Your task to perform on an android device: turn off airplane mode Image 0: 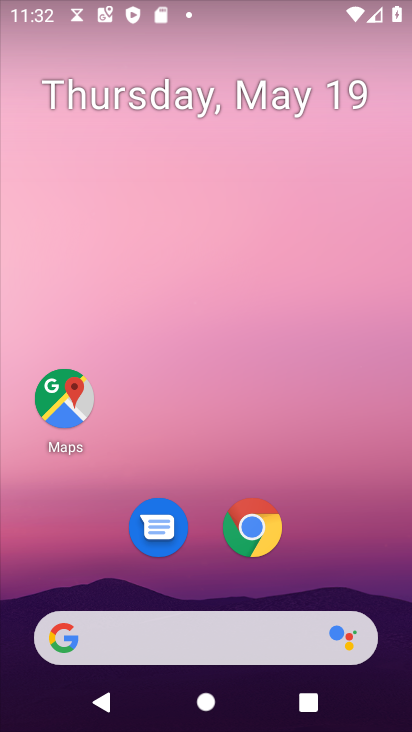
Step 0: drag from (213, 482) to (256, 66)
Your task to perform on an android device: turn off airplane mode Image 1: 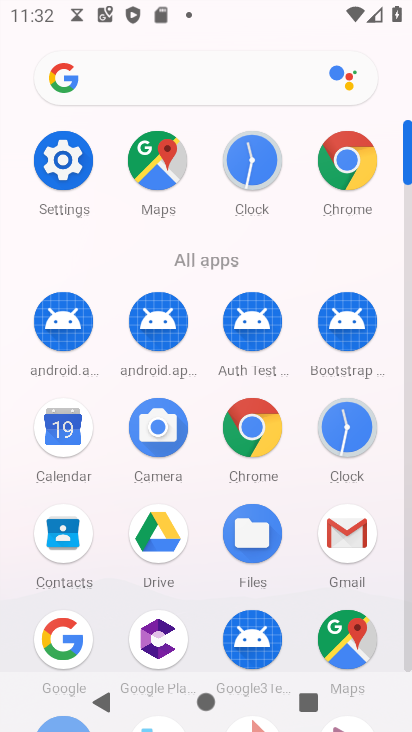
Step 1: click (86, 174)
Your task to perform on an android device: turn off airplane mode Image 2: 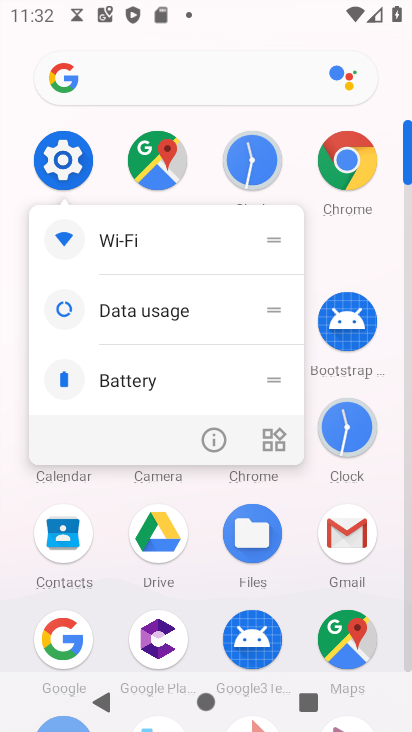
Step 2: click (58, 161)
Your task to perform on an android device: turn off airplane mode Image 3: 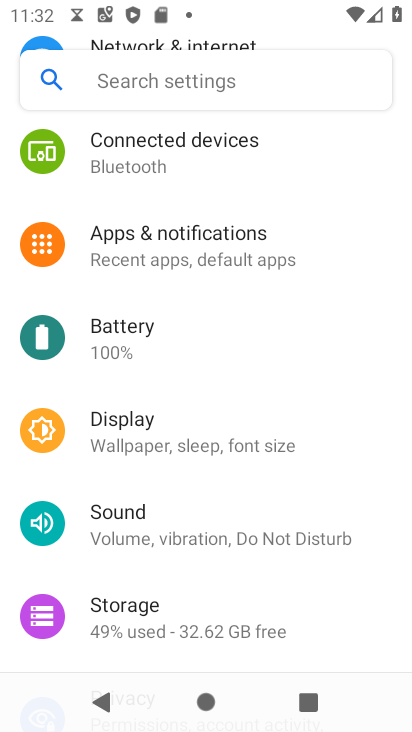
Step 3: click (169, 504)
Your task to perform on an android device: turn off airplane mode Image 4: 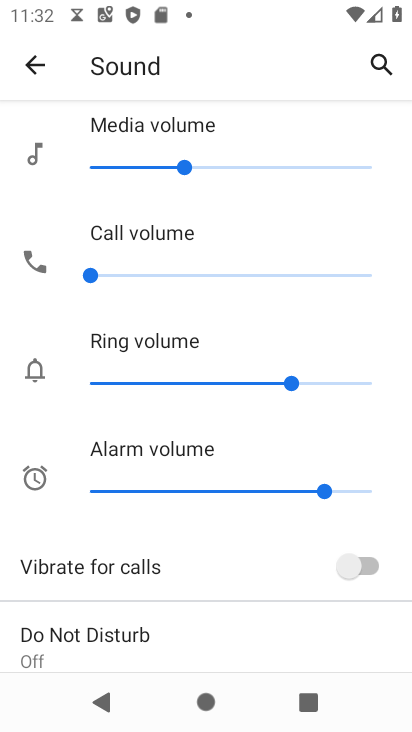
Step 4: drag from (230, 294) to (220, 388)
Your task to perform on an android device: turn off airplane mode Image 5: 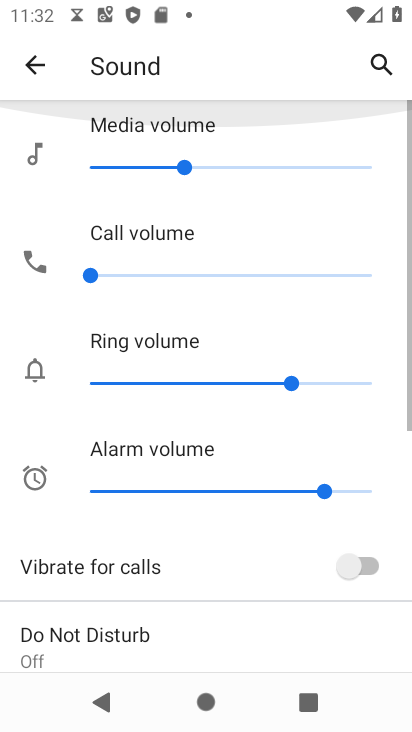
Step 5: click (159, 614)
Your task to perform on an android device: turn off airplane mode Image 6: 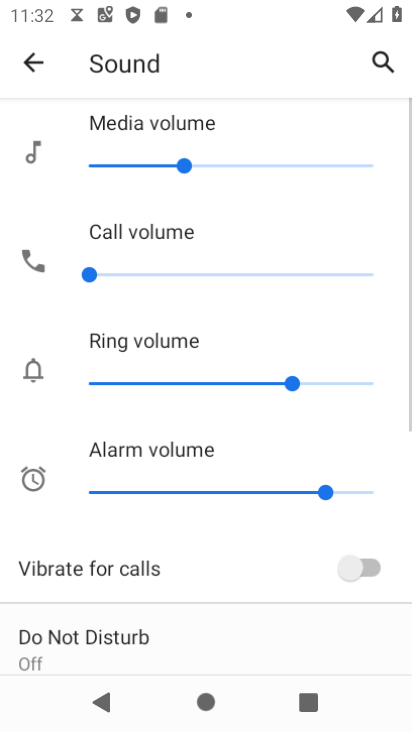
Step 6: drag from (173, 557) to (226, 484)
Your task to perform on an android device: turn off airplane mode Image 7: 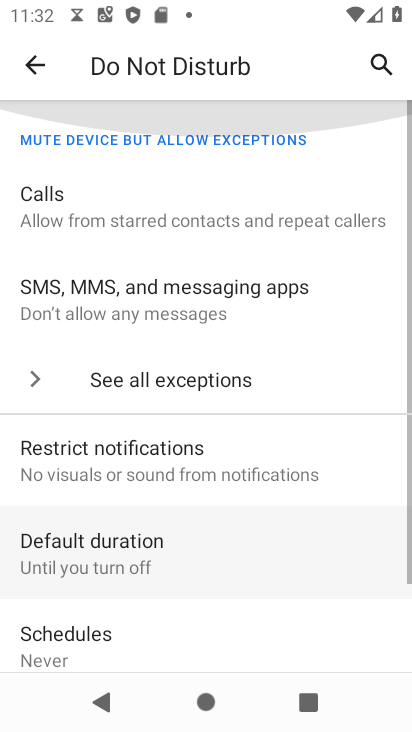
Step 7: click (263, 199)
Your task to perform on an android device: turn off airplane mode Image 8: 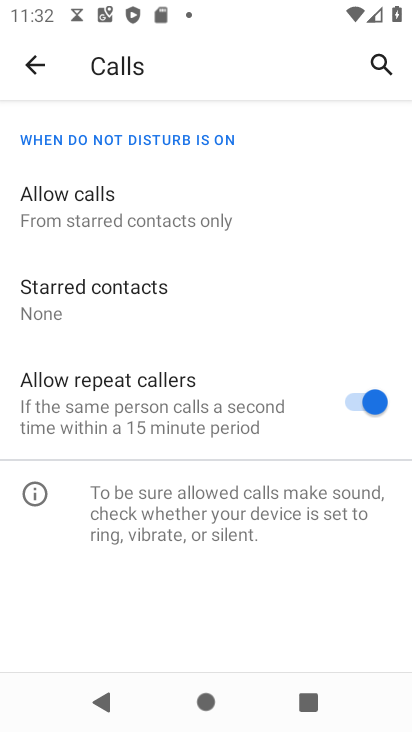
Step 8: press home button
Your task to perform on an android device: turn off airplane mode Image 9: 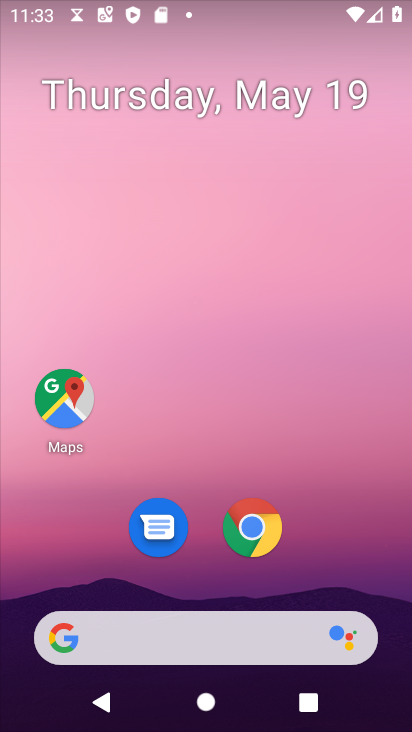
Step 9: drag from (216, 449) to (224, 39)
Your task to perform on an android device: turn off airplane mode Image 10: 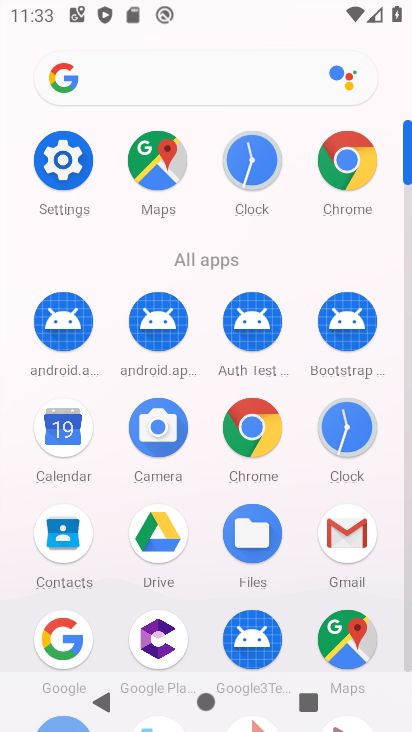
Step 10: drag from (226, 569) to (266, 4)
Your task to perform on an android device: turn off airplane mode Image 11: 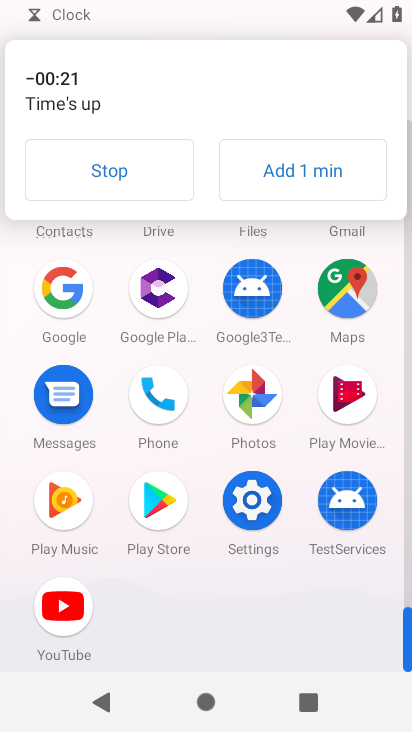
Step 11: click (128, 181)
Your task to perform on an android device: turn off airplane mode Image 12: 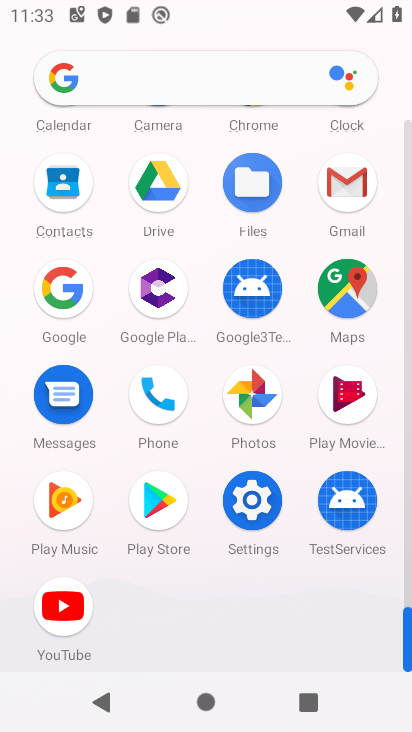
Step 12: drag from (321, 208) to (294, 621)
Your task to perform on an android device: turn off airplane mode Image 13: 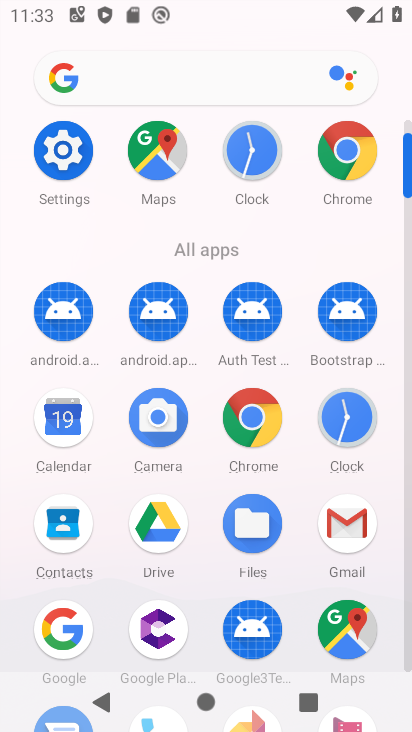
Step 13: click (53, 153)
Your task to perform on an android device: turn off airplane mode Image 14: 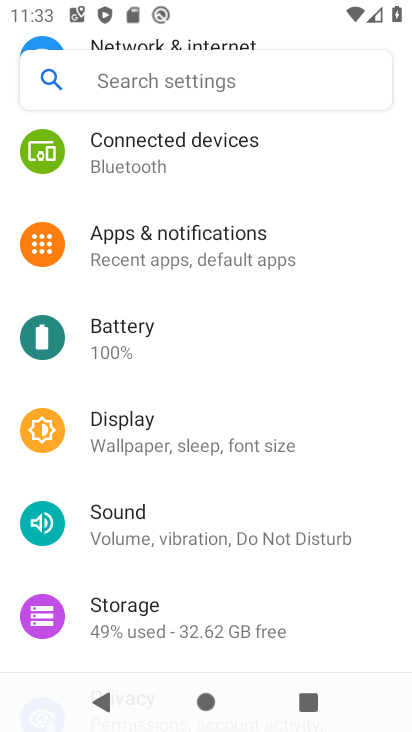
Step 14: drag from (235, 238) to (250, 668)
Your task to perform on an android device: turn off airplane mode Image 15: 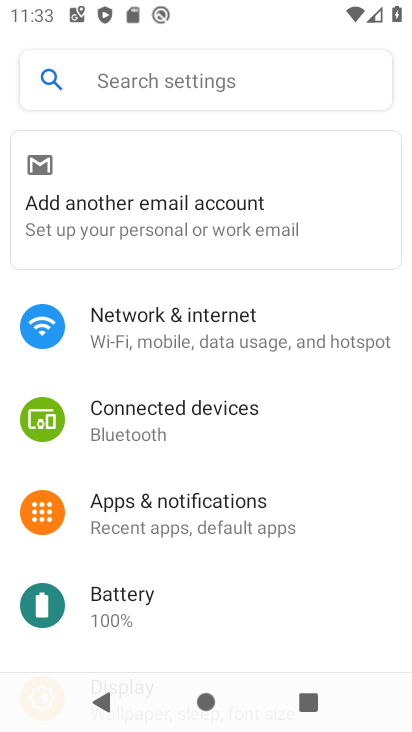
Step 15: click (205, 332)
Your task to perform on an android device: turn off airplane mode Image 16: 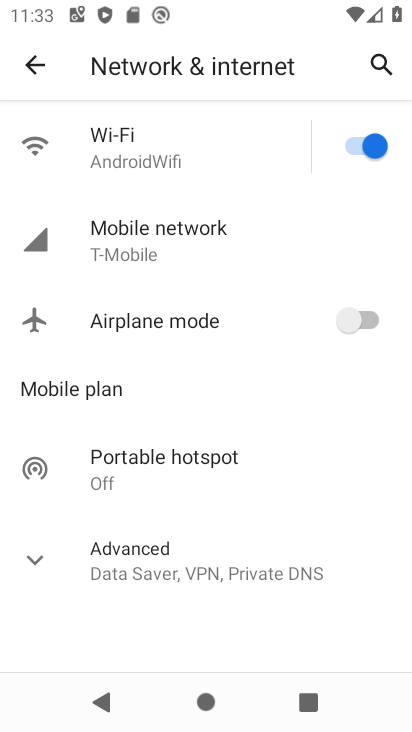
Step 16: task complete